Your task to perform on an android device: delete the emails in spam in the gmail app Image 0: 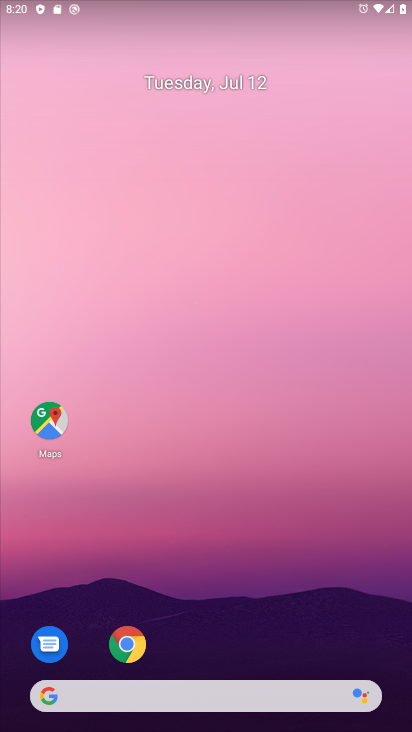
Step 0: drag from (128, 489) to (220, 237)
Your task to perform on an android device: delete the emails in spam in the gmail app Image 1: 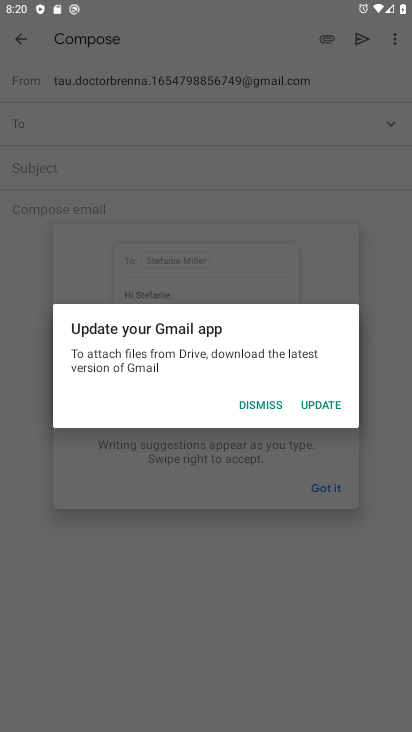
Step 1: press home button
Your task to perform on an android device: delete the emails in spam in the gmail app Image 2: 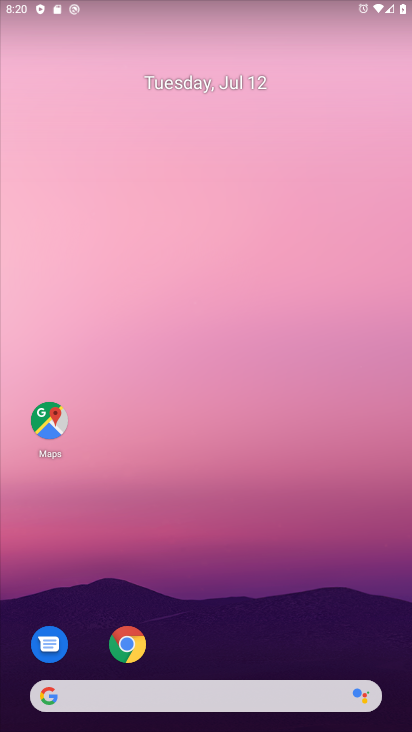
Step 2: drag from (286, 144) to (309, 61)
Your task to perform on an android device: delete the emails in spam in the gmail app Image 3: 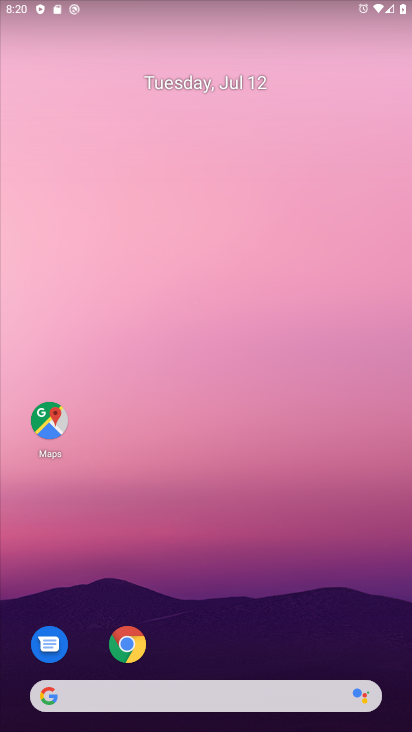
Step 3: drag from (34, 647) to (235, 95)
Your task to perform on an android device: delete the emails in spam in the gmail app Image 4: 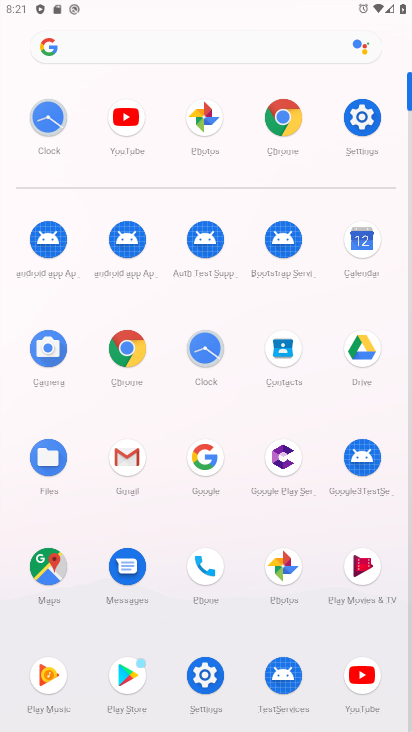
Step 4: click (125, 457)
Your task to perform on an android device: delete the emails in spam in the gmail app Image 5: 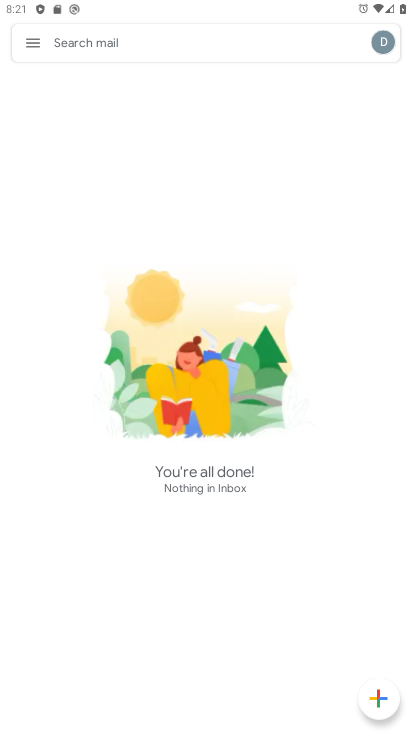
Step 5: click (24, 26)
Your task to perform on an android device: delete the emails in spam in the gmail app Image 6: 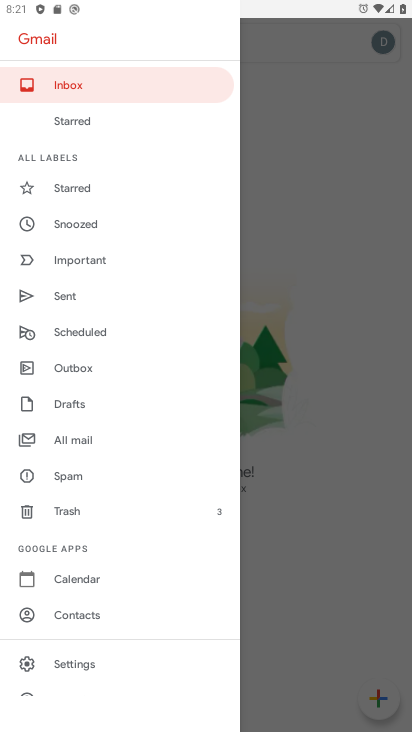
Step 6: click (64, 478)
Your task to perform on an android device: delete the emails in spam in the gmail app Image 7: 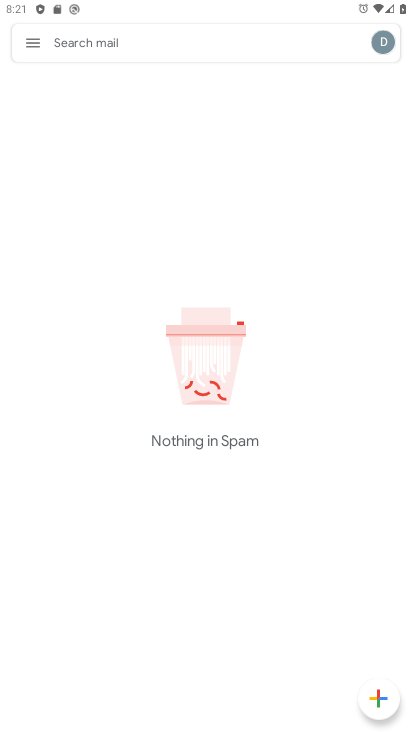
Step 7: task complete